Your task to perform on an android device: turn off priority inbox in the gmail app Image 0: 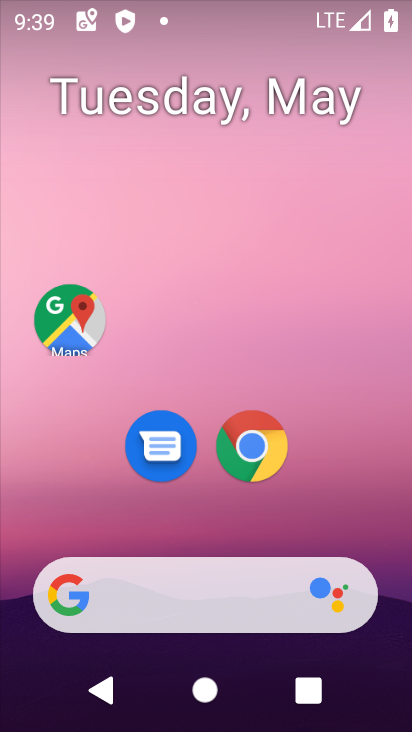
Step 0: drag from (172, 580) to (181, 217)
Your task to perform on an android device: turn off priority inbox in the gmail app Image 1: 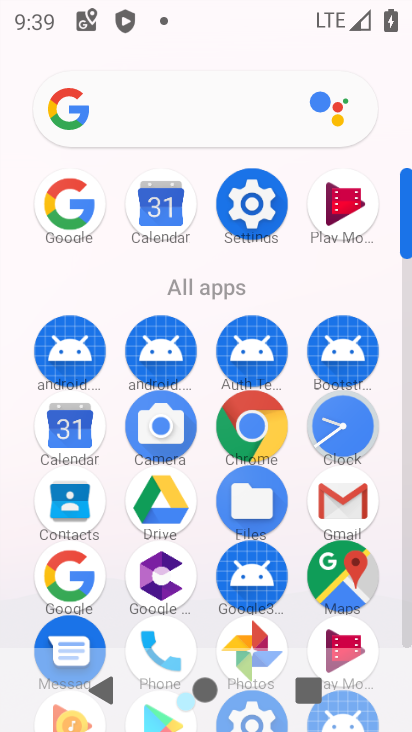
Step 1: click (348, 502)
Your task to perform on an android device: turn off priority inbox in the gmail app Image 2: 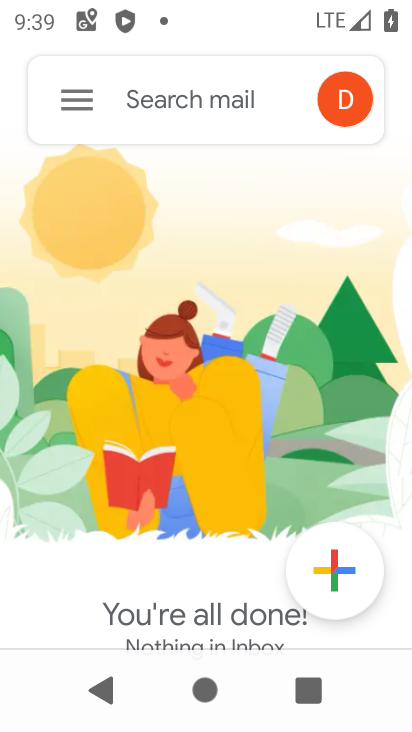
Step 2: click (91, 115)
Your task to perform on an android device: turn off priority inbox in the gmail app Image 3: 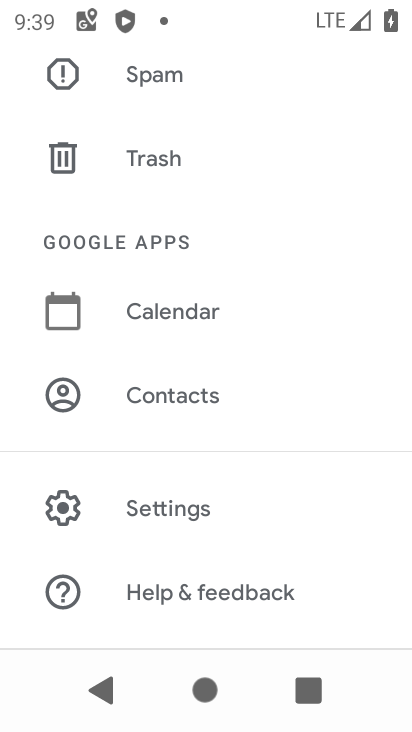
Step 3: click (174, 515)
Your task to perform on an android device: turn off priority inbox in the gmail app Image 4: 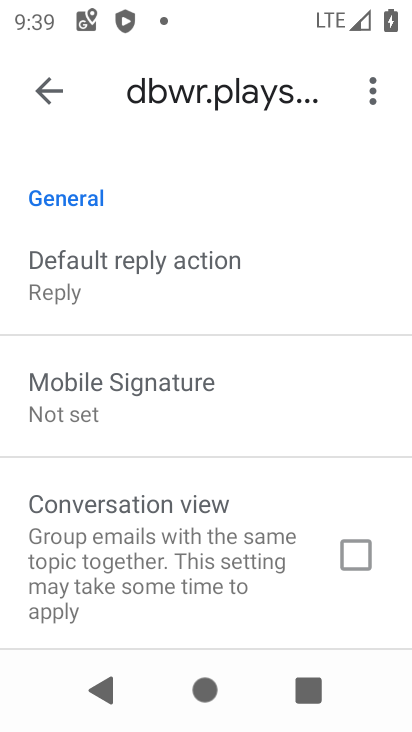
Step 4: drag from (148, 460) to (151, 173)
Your task to perform on an android device: turn off priority inbox in the gmail app Image 5: 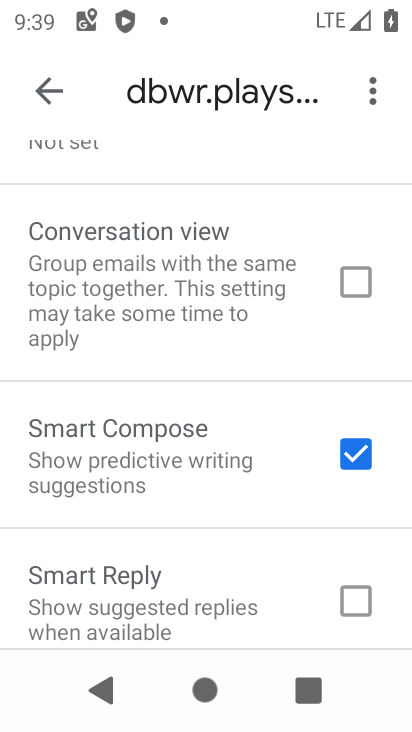
Step 5: drag from (163, 239) to (139, 706)
Your task to perform on an android device: turn off priority inbox in the gmail app Image 6: 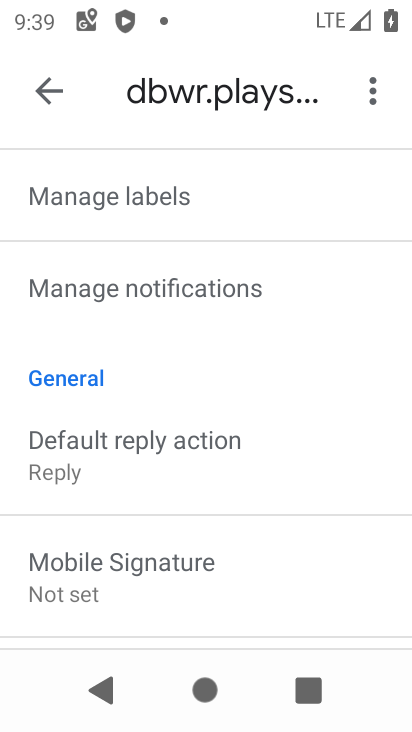
Step 6: drag from (134, 254) to (98, 725)
Your task to perform on an android device: turn off priority inbox in the gmail app Image 7: 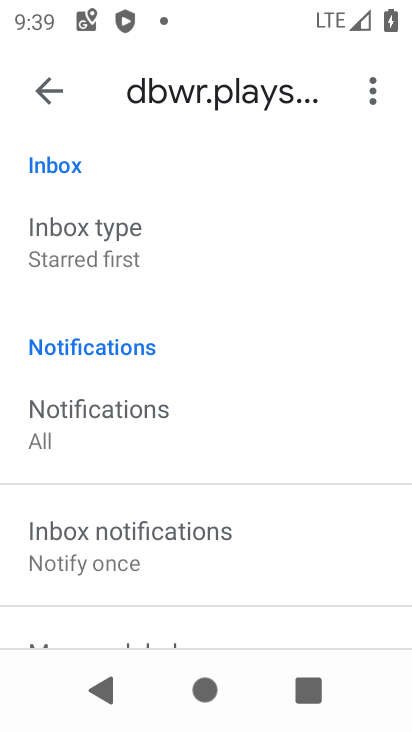
Step 7: click (107, 256)
Your task to perform on an android device: turn off priority inbox in the gmail app Image 8: 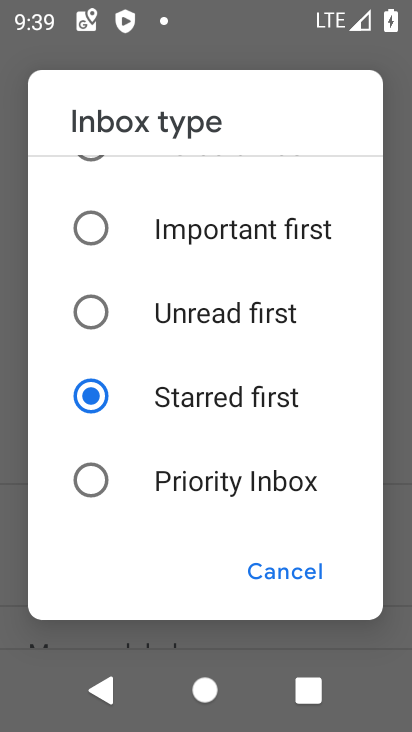
Step 8: click (103, 232)
Your task to perform on an android device: turn off priority inbox in the gmail app Image 9: 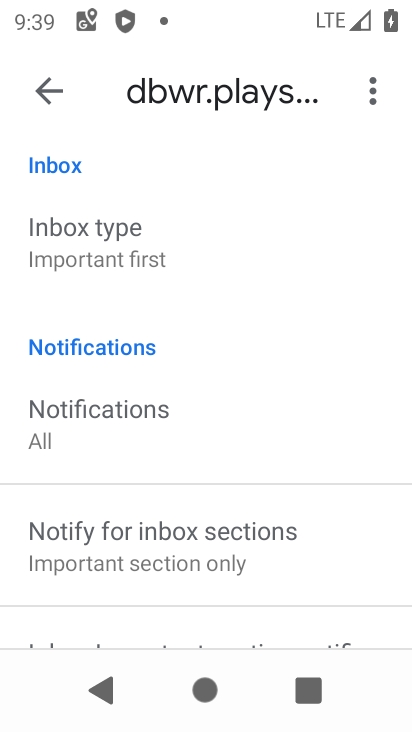
Step 9: task complete